Your task to perform on an android device: turn on showing notifications on the lock screen Image 0: 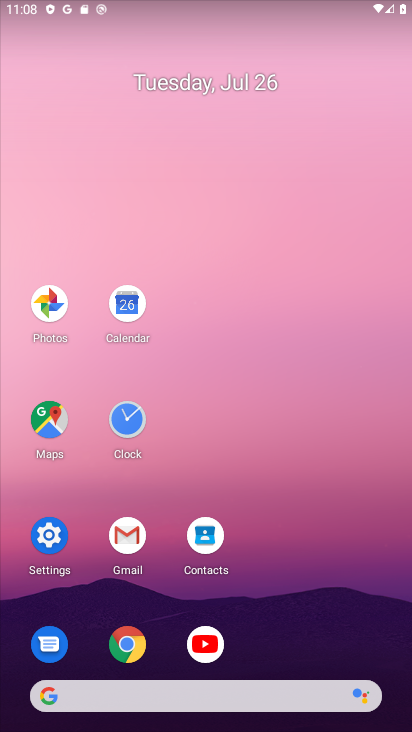
Step 0: click (48, 538)
Your task to perform on an android device: turn on showing notifications on the lock screen Image 1: 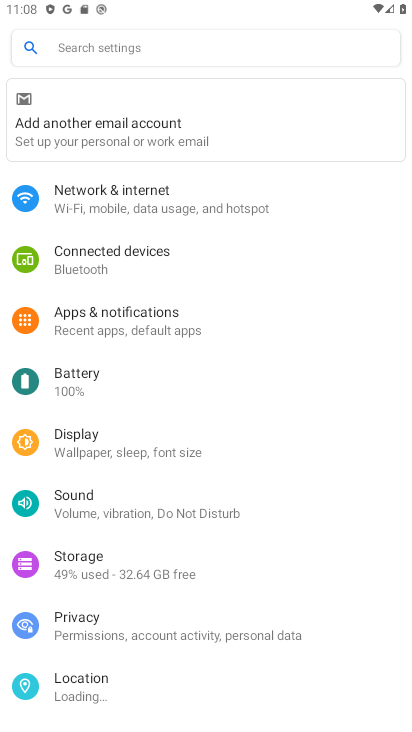
Step 1: click (105, 316)
Your task to perform on an android device: turn on showing notifications on the lock screen Image 2: 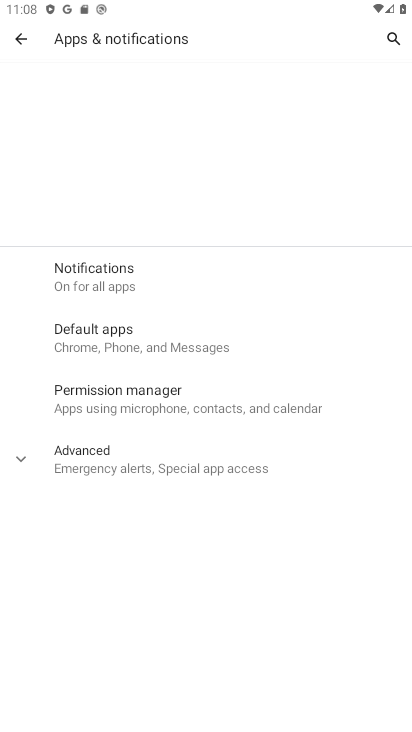
Step 2: click (77, 271)
Your task to perform on an android device: turn on showing notifications on the lock screen Image 3: 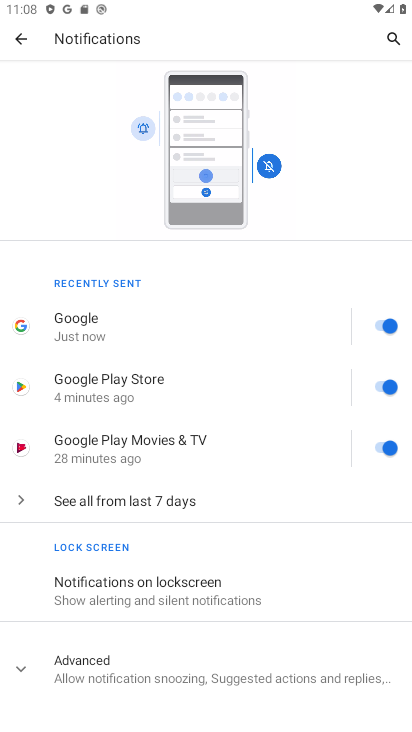
Step 3: click (143, 576)
Your task to perform on an android device: turn on showing notifications on the lock screen Image 4: 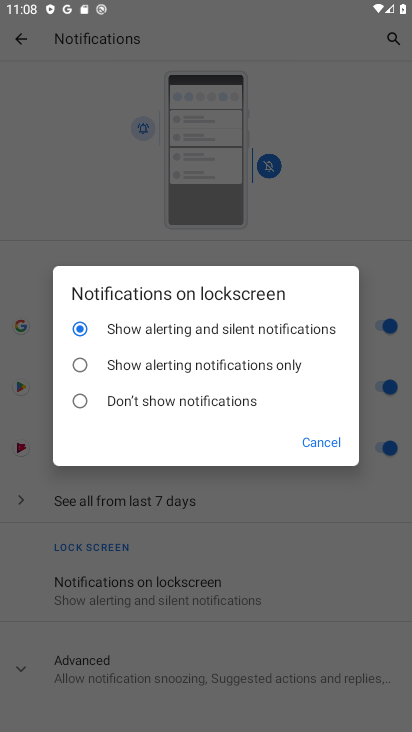
Step 4: task complete